Your task to perform on an android device: turn on data saver in the chrome app Image 0: 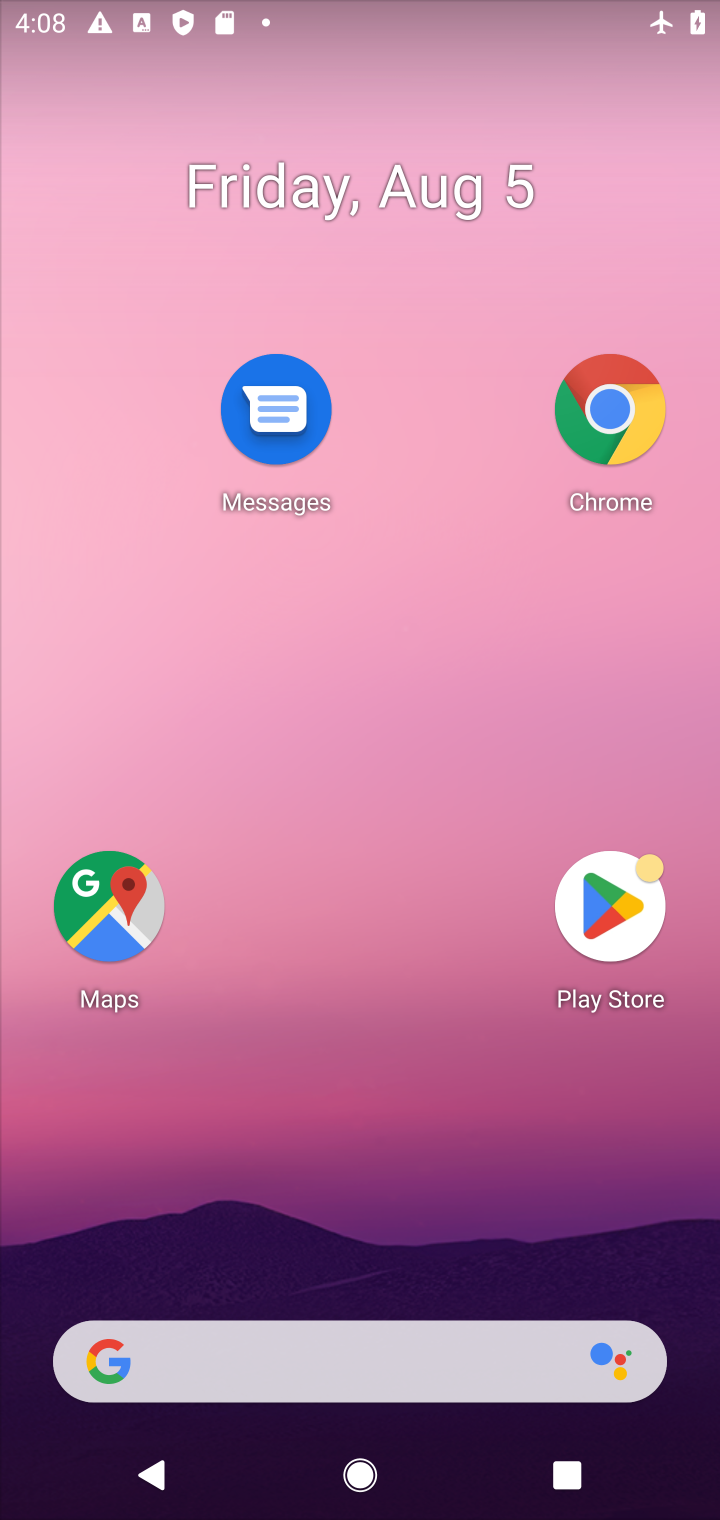
Step 0: click (576, 429)
Your task to perform on an android device: turn on data saver in the chrome app Image 1: 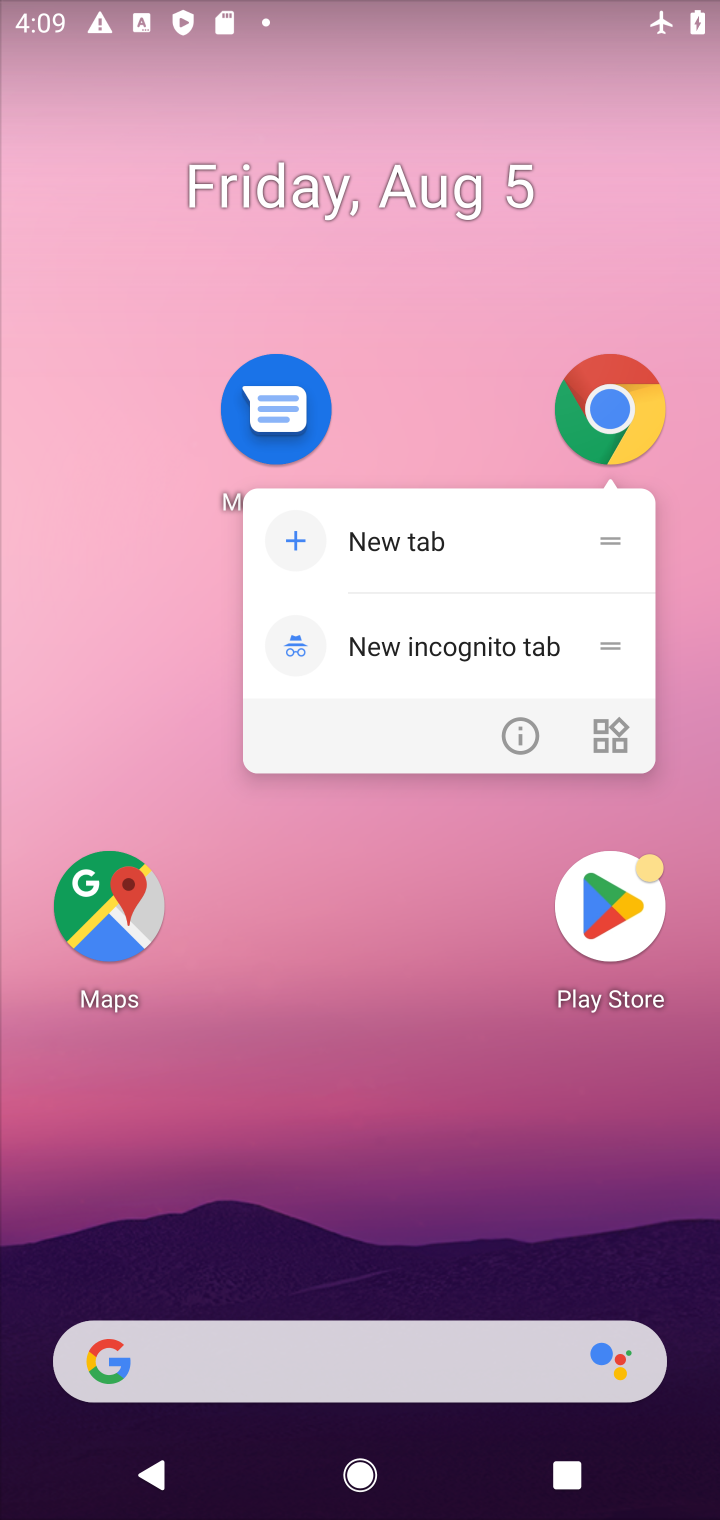
Step 1: click (595, 425)
Your task to perform on an android device: turn on data saver in the chrome app Image 2: 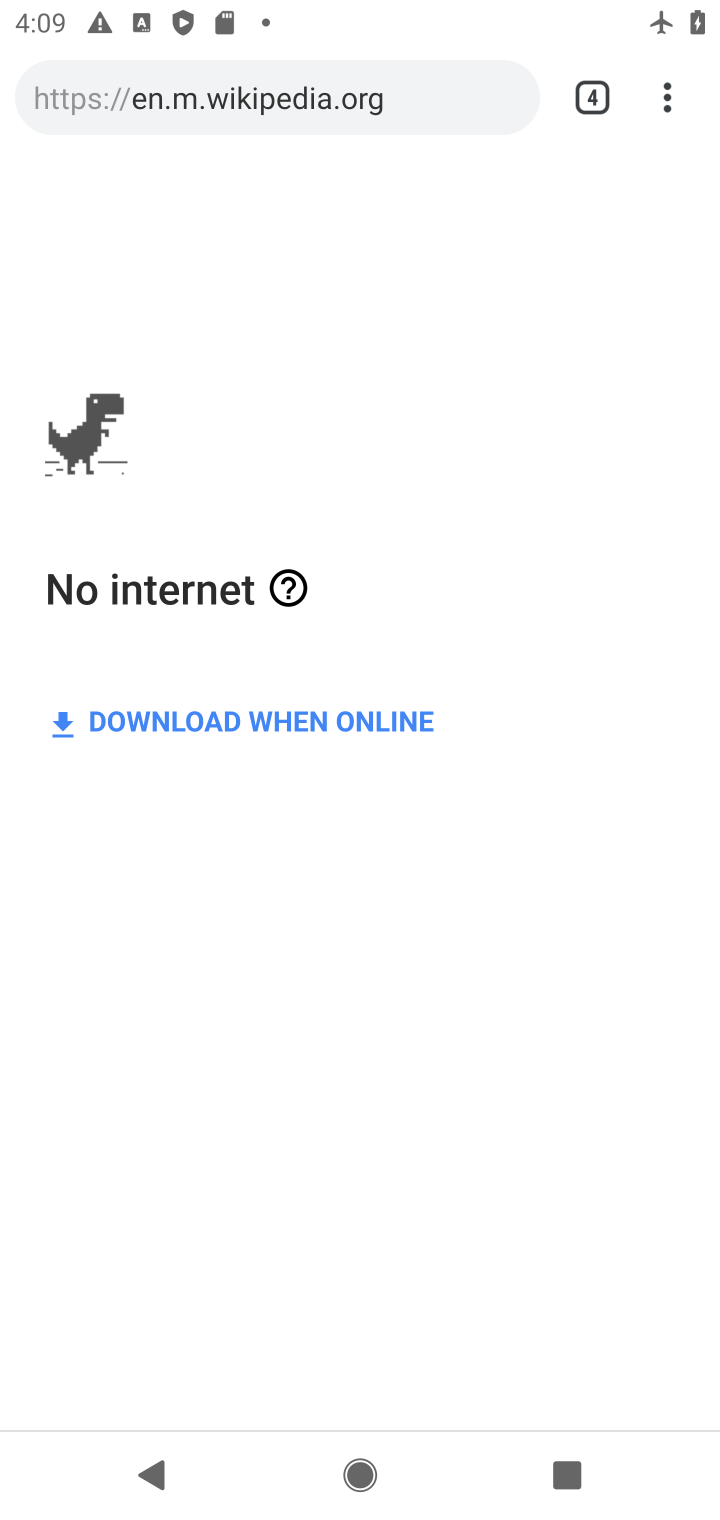
Step 2: click (653, 99)
Your task to perform on an android device: turn on data saver in the chrome app Image 3: 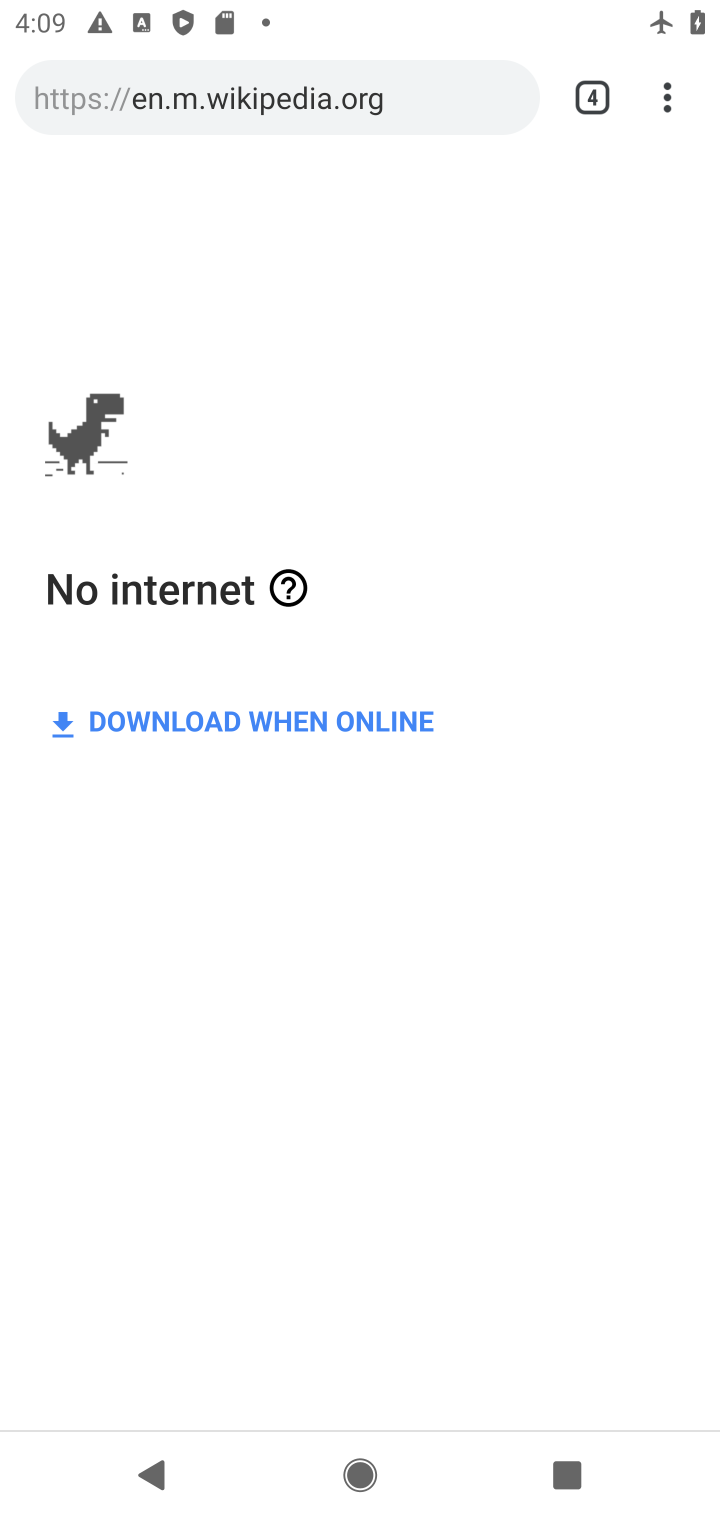
Step 3: drag from (655, 99) to (350, 1055)
Your task to perform on an android device: turn on data saver in the chrome app Image 4: 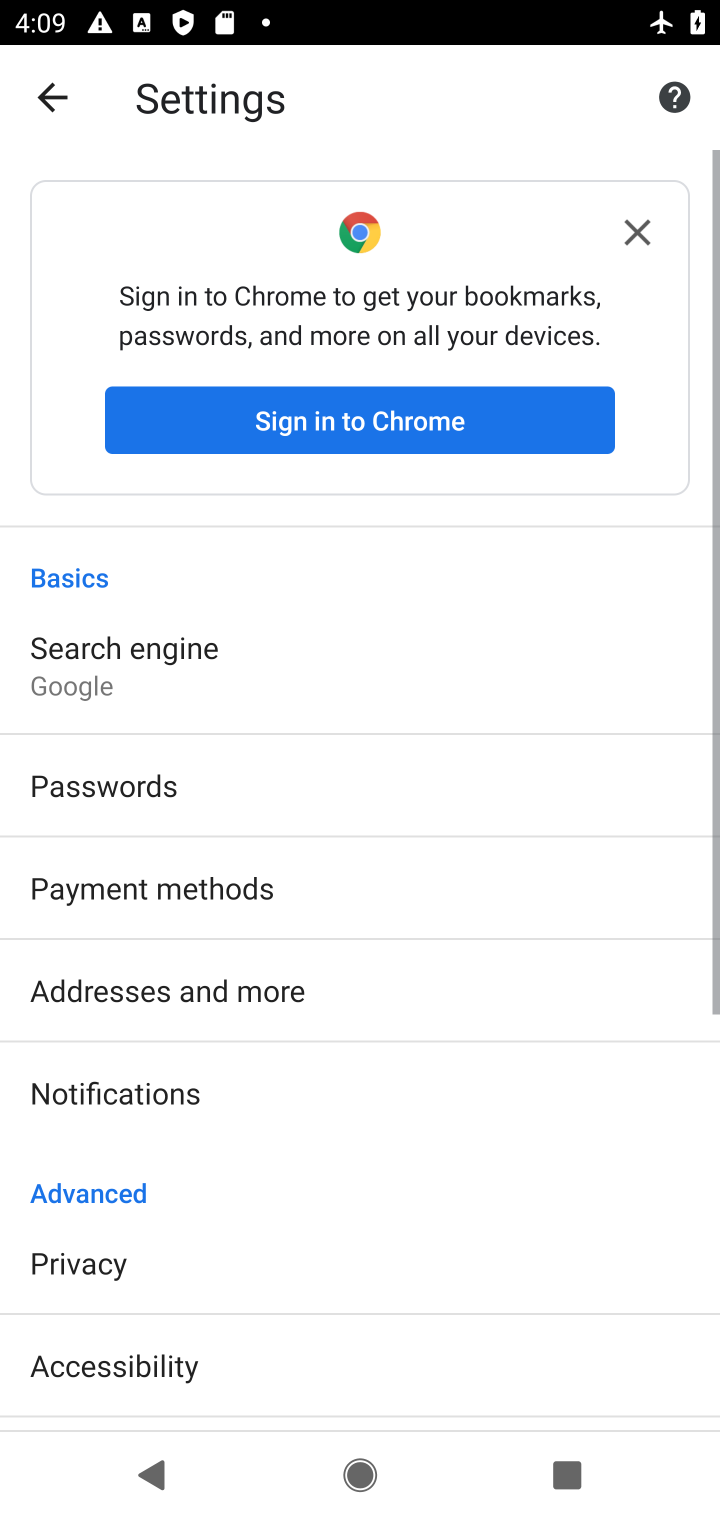
Step 4: drag from (209, 1101) to (229, 359)
Your task to perform on an android device: turn on data saver in the chrome app Image 5: 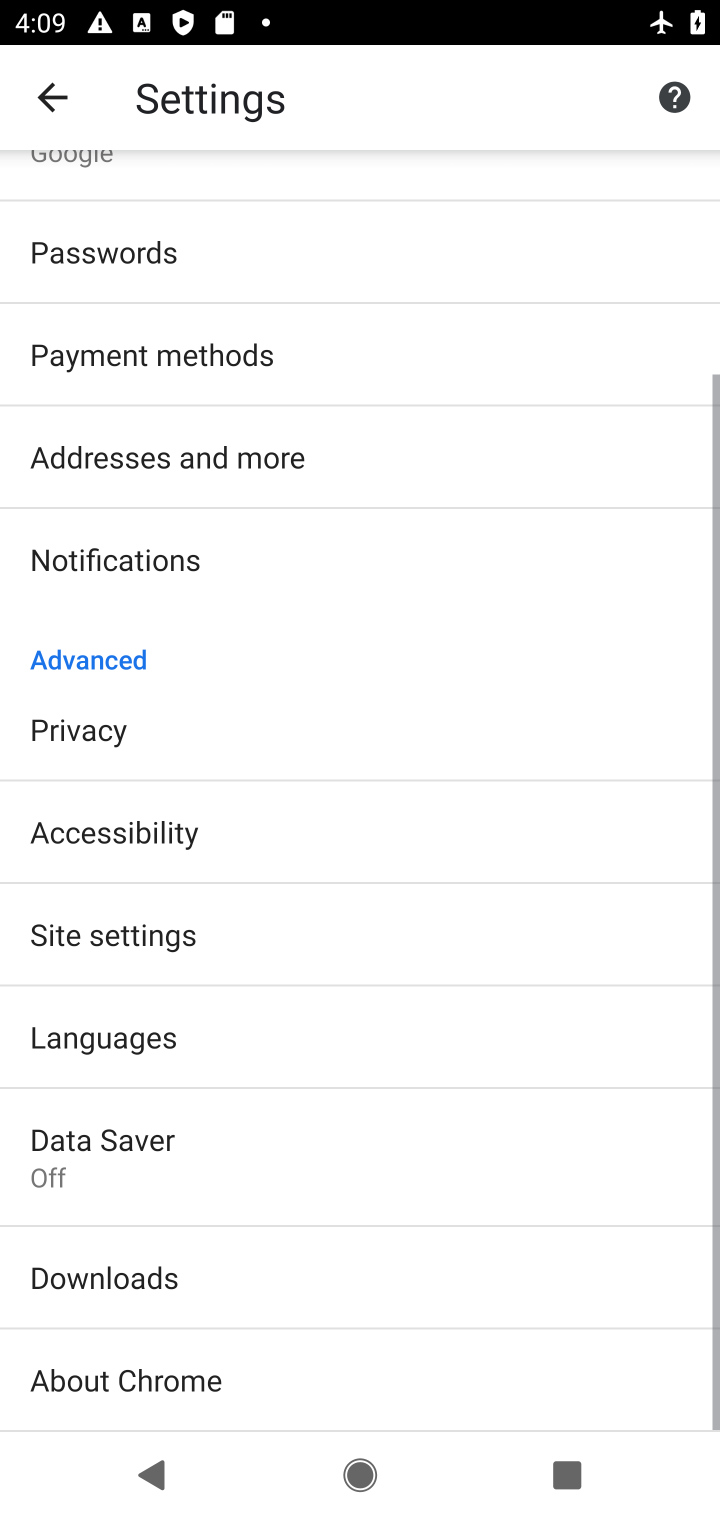
Step 5: click (104, 1117)
Your task to perform on an android device: turn on data saver in the chrome app Image 6: 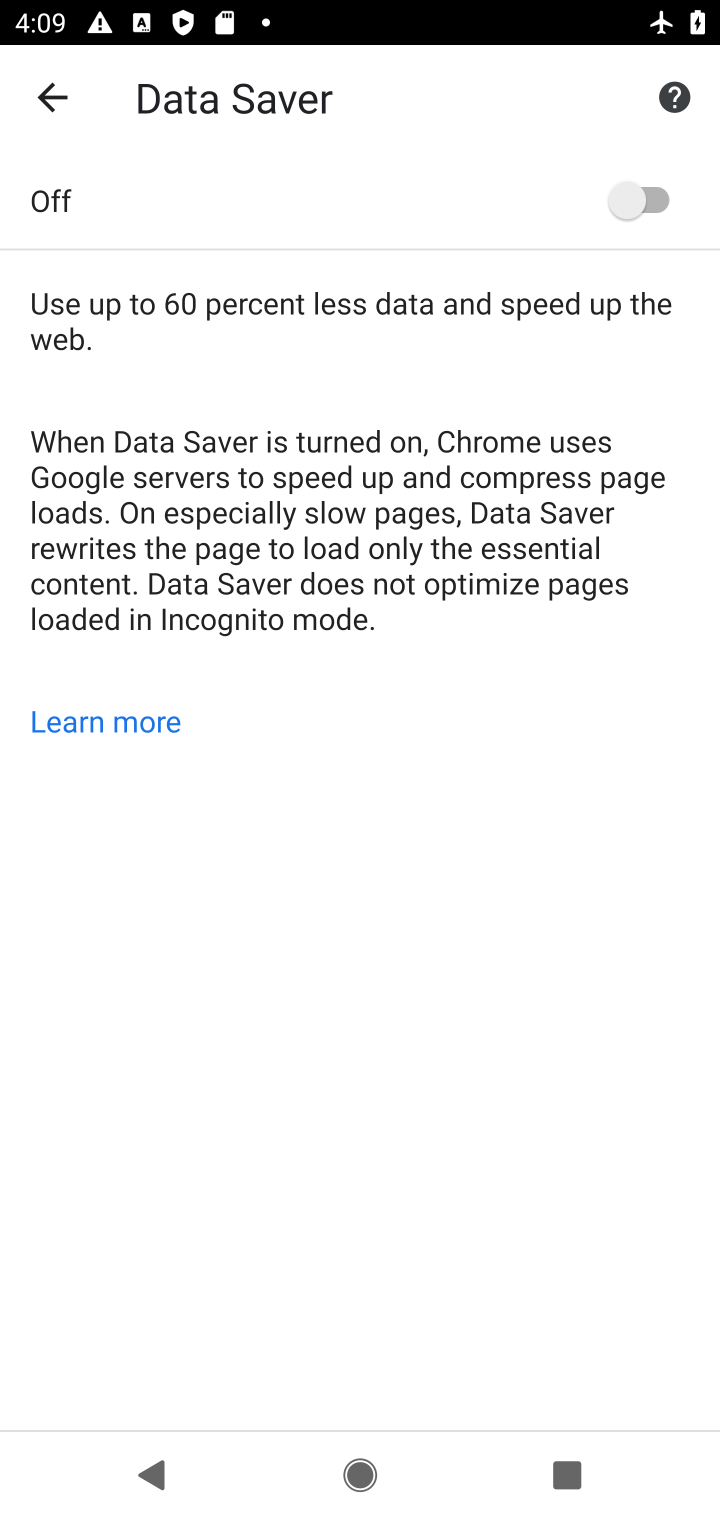
Step 6: click (650, 210)
Your task to perform on an android device: turn on data saver in the chrome app Image 7: 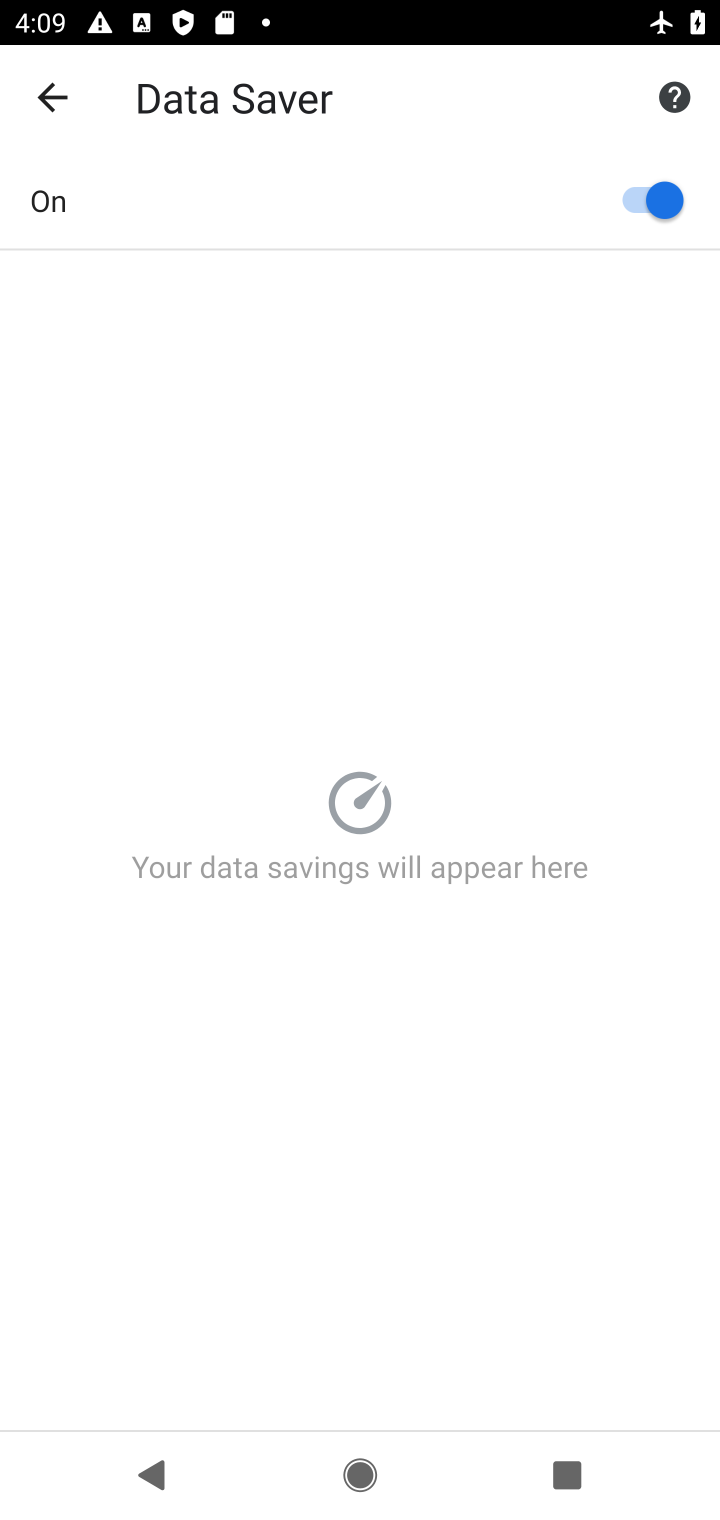
Step 7: task complete